Your task to perform on an android device: Open Google Chrome and open the bookmarks view Image 0: 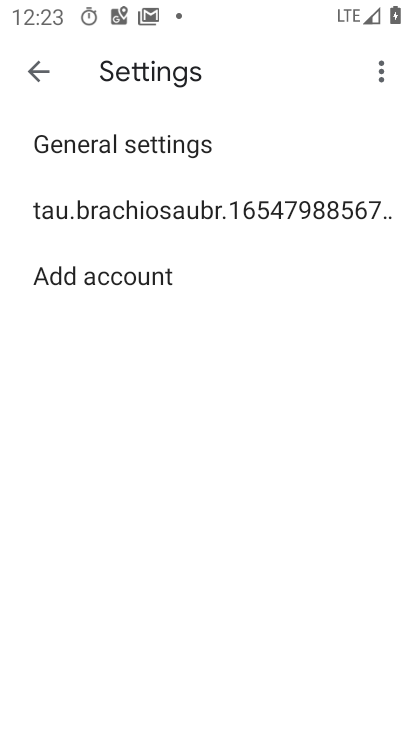
Step 0: press home button
Your task to perform on an android device: Open Google Chrome and open the bookmarks view Image 1: 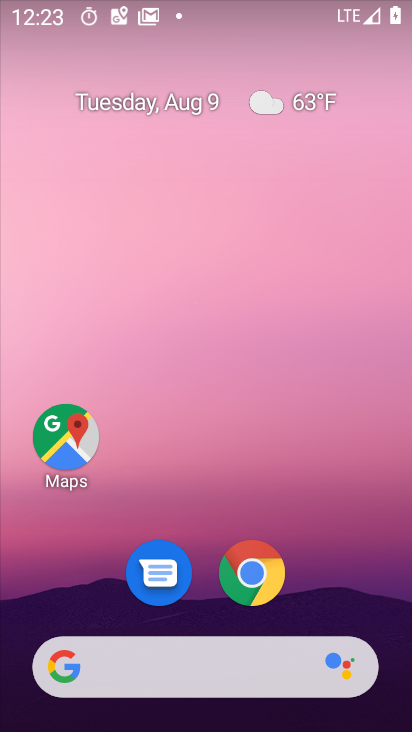
Step 1: click (247, 590)
Your task to perform on an android device: Open Google Chrome and open the bookmarks view Image 2: 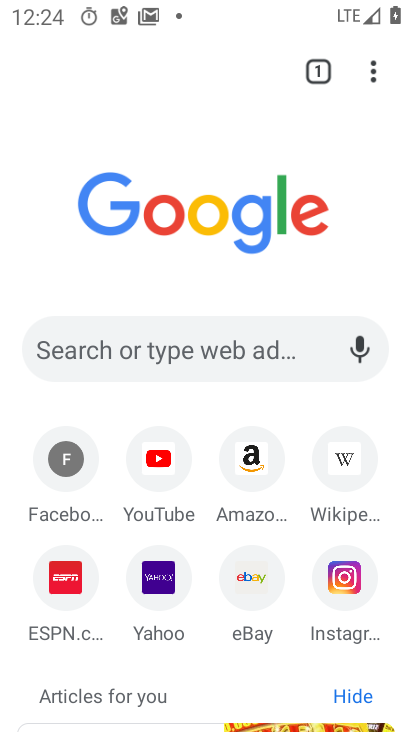
Step 2: click (373, 68)
Your task to perform on an android device: Open Google Chrome and open the bookmarks view Image 3: 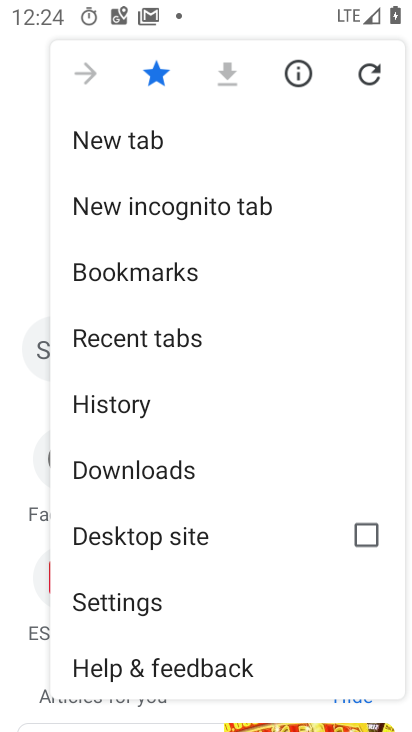
Step 3: drag from (183, 660) to (183, 280)
Your task to perform on an android device: Open Google Chrome and open the bookmarks view Image 4: 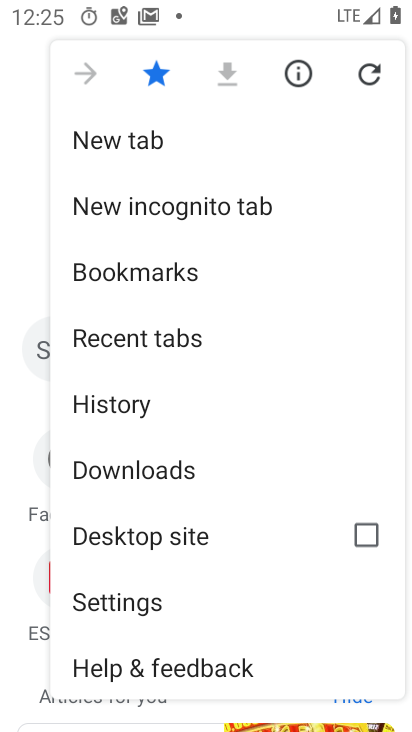
Step 4: click (105, 277)
Your task to perform on an android device: Open Google Chrome and open the bookmarks view Image 5: 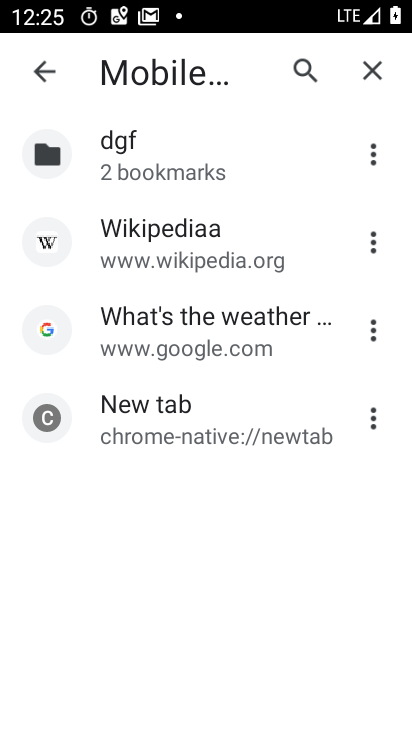
Step 5: task complete